Your task to perform on an android device: Open Youtube and go to "Your channel" Image 0: 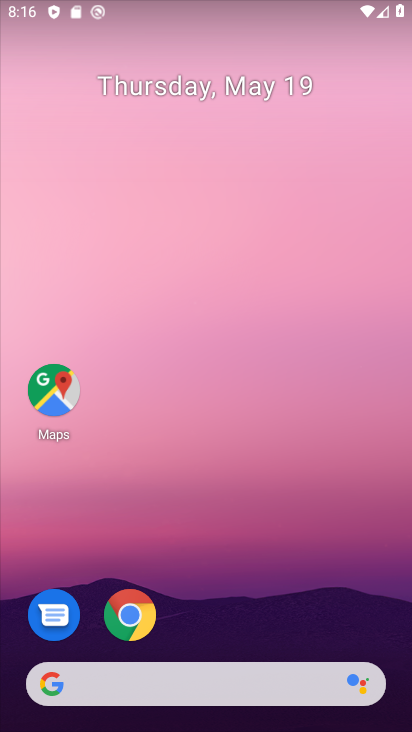
Step 0: drag from (289, 624) to (169, 45)
Your task to perform on an android device: Open Youtube and go to "Your channel" Image 1: 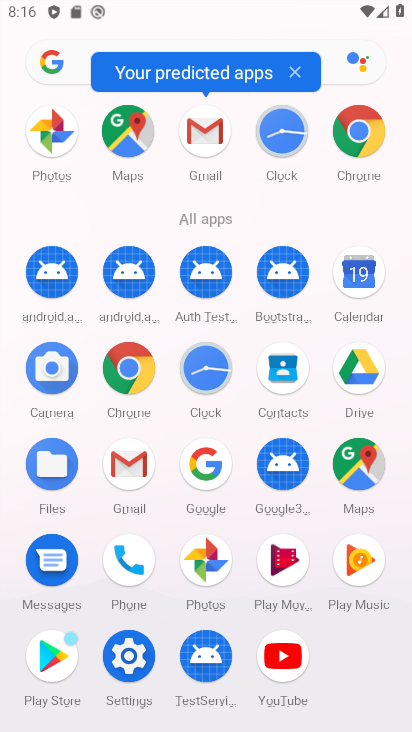
Step 1: click (279, 659)
Your task to perform on an android device: Open Youtube and go to "Your channel" Image 2: 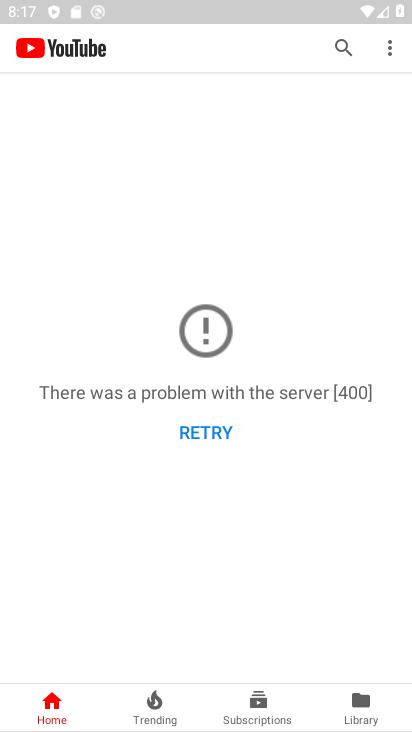
Step 2: click (389, 47)
Your task to perform on an android device: Open Youtube and go to "Your channel" Image 3: 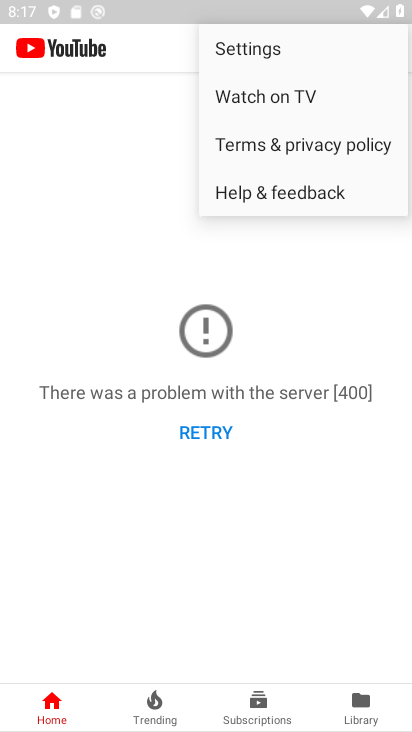
Step 3: click (268, 54)
Your task to perform on an android device: Open Youtube and go to "Your channel" Image 4: 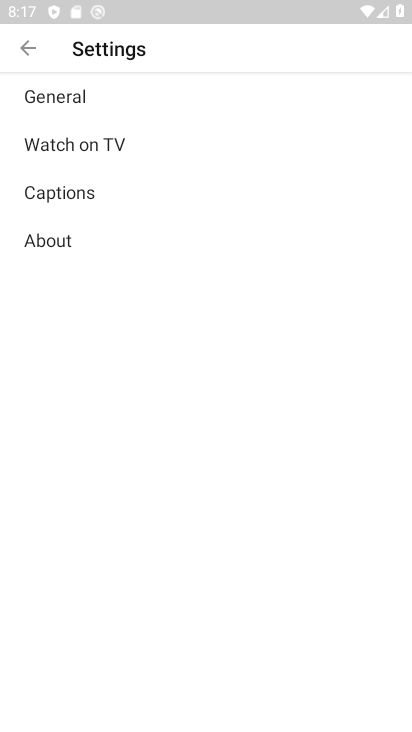
Step 4: click (65, 92)
Your task to perform on an android device: Open Youtube and go to "Your channel" Image 5: 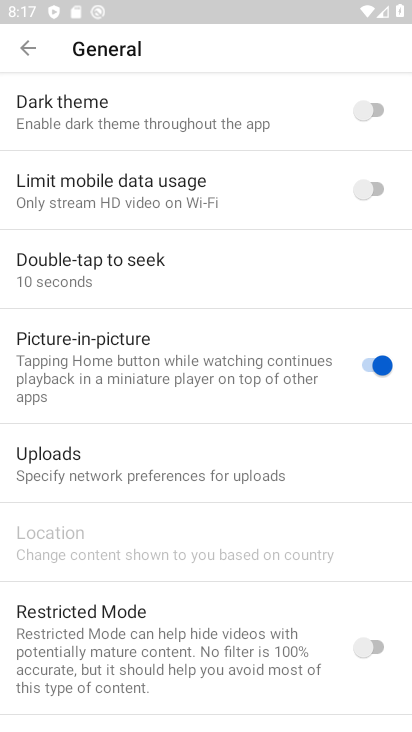
Step 5: drag from (169, 628) to (199, 4)
Your task to perform on an android device: Open Youtube and go to "Your channel" Image 6: 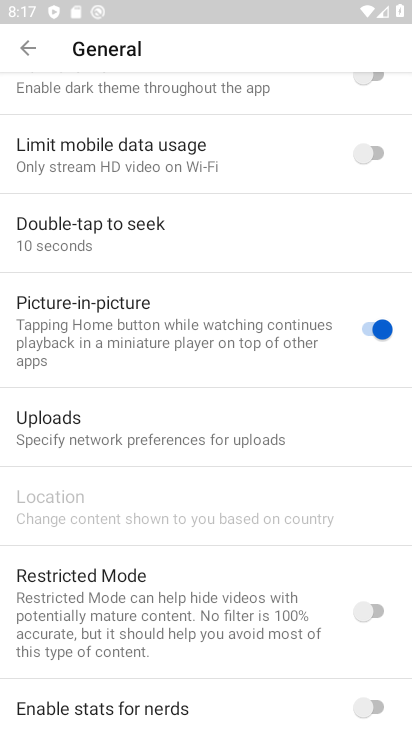
Step 6: drag from (95, 542) to (133, 6)
Your task to perform on an android device: Open Youtube and go to "Your channel" Image 7: 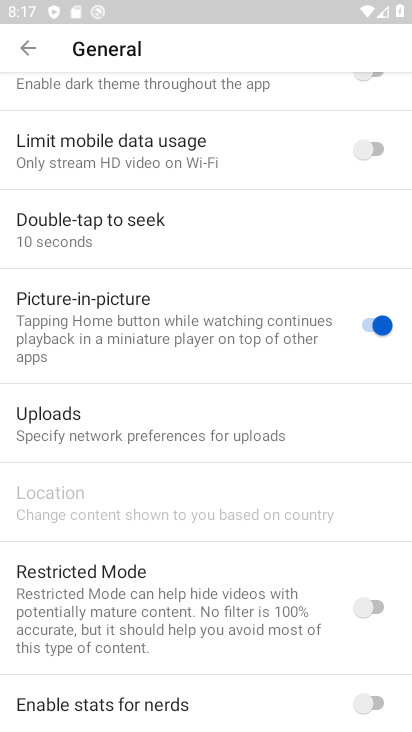
Step 7: click (19, 44)
Your task to perform on an android device: Open Youtube and go to "Your channel" Image 8: 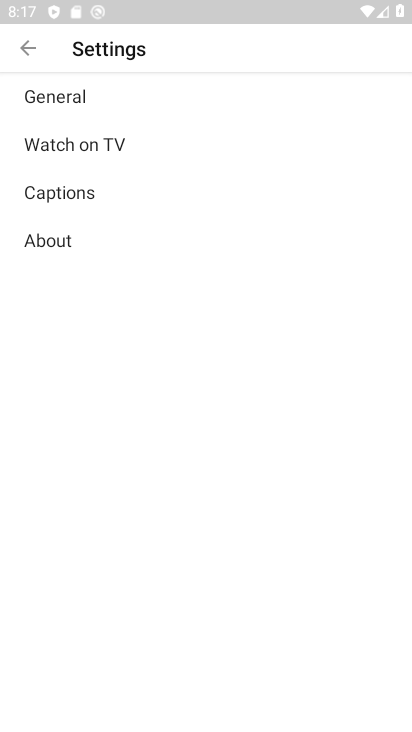
Step 8: click (27, 51)
Your task to perform on an android device: Open Youtube and go to "Your channel" Image 9: 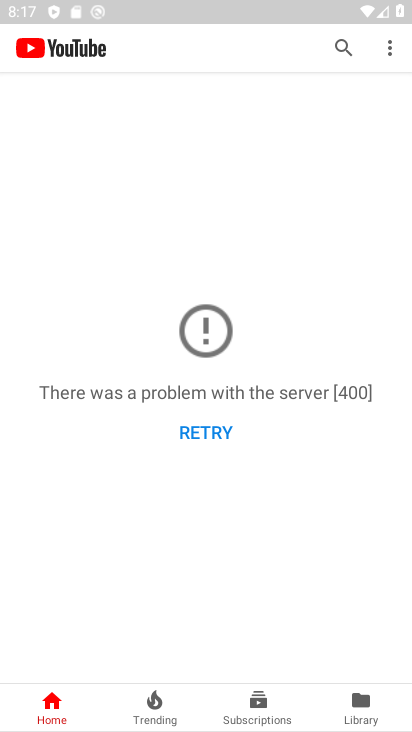
Step 9: click (373, 719)
Your task to perform on an android device: Open Youtube and go to "Your channel" Image 10: 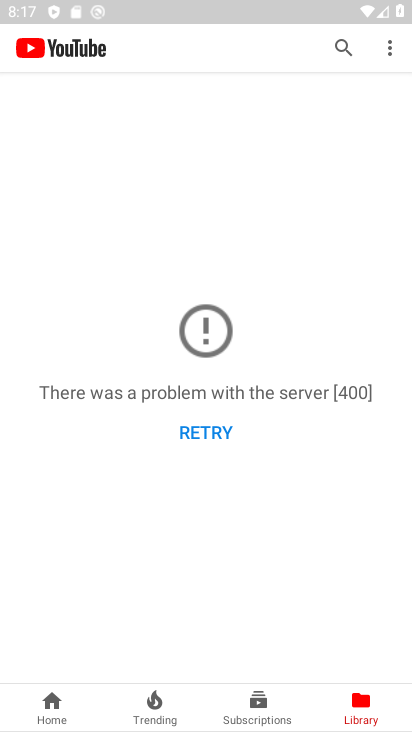
Step 10: click (373, 719)
Your task to perform on an android device: Open Youtube and go to "Your channel" Image 11: 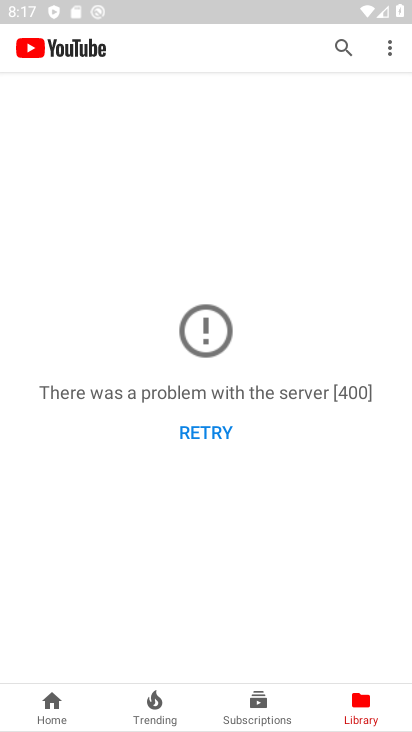
Step 11: click (373, 719)
Your task to perform on an android device: Open Youtube and go to "Your channel" Image 12: 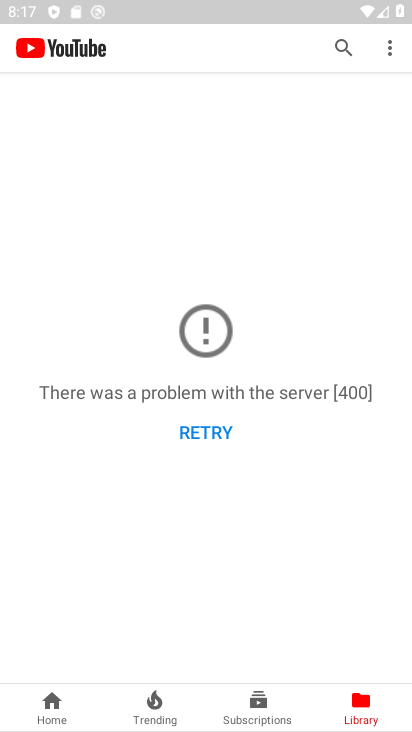
Step 12: click (373, 719)
Your task to perform on an android device: Open Youtube and go to "Your channel" Image 13: 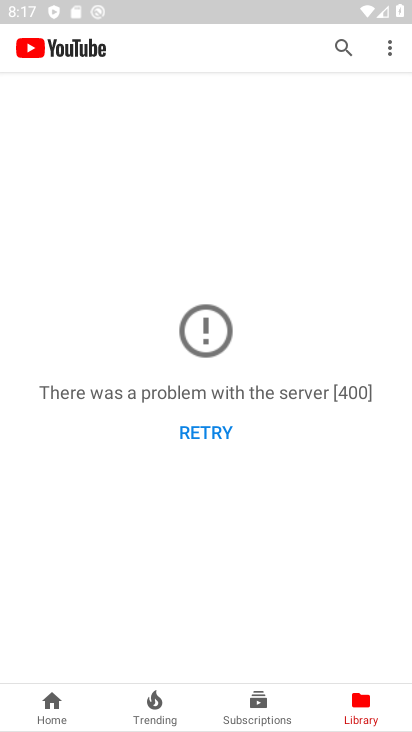
Step 13: task complete